Your task to perform on an android device: add a contact in the contacts app Image 0: 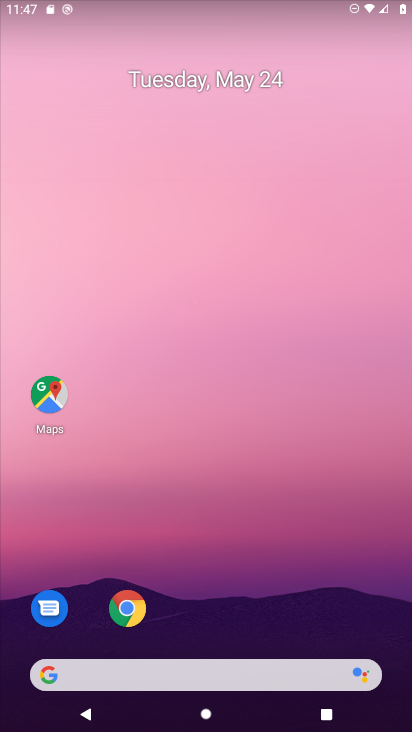
Step 0: drag from (363, 616) to (285, 134)
Your task to perform on an android device: add a contact in the contacts app Image 1: 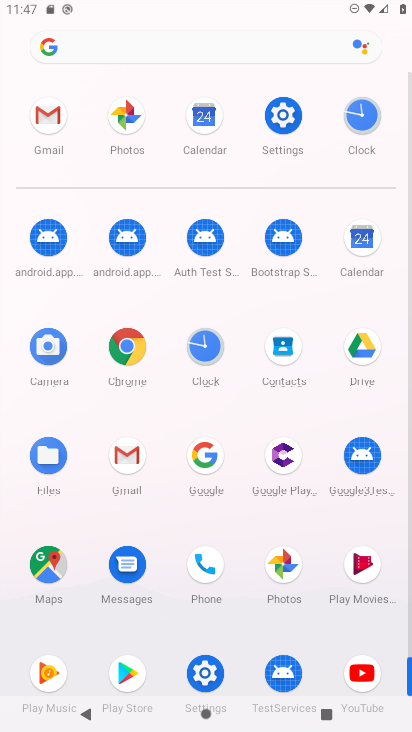
Step 1: click (281, 347)
Your task to perform on an android device: add a contact in the contacts app Image 2: 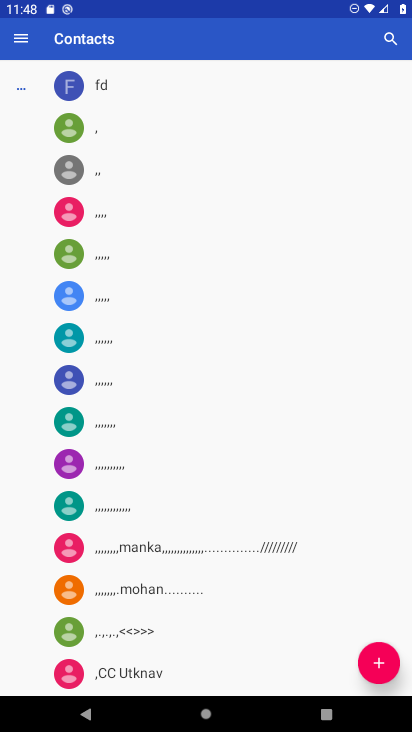
Step 2: click (378, 663)
Your task to perform on an android device: add a contact in the contacts app Image 3: 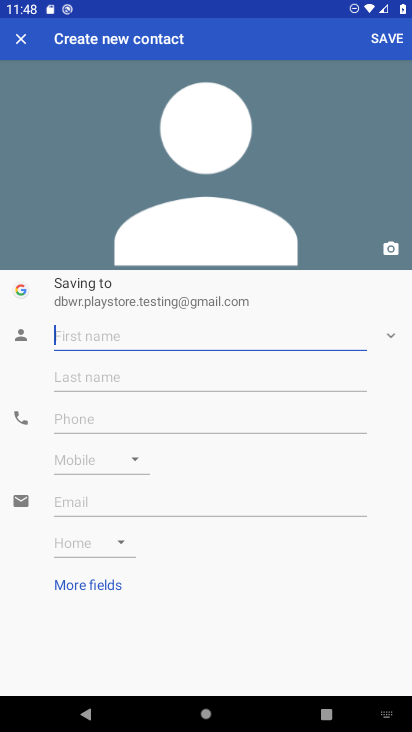
Step 3: type "hghjhgh"
Your task to perform on an android device: add a contact in the contacts app Image 4: 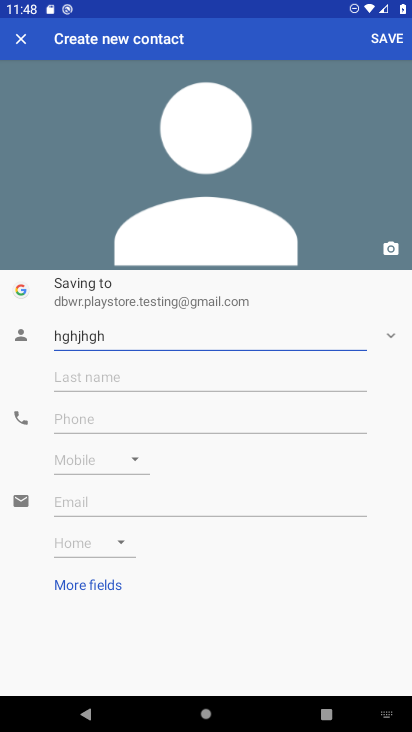
Step 4: click (114, 416)
Your task to perform on an android device: add a contact in the contacts app Image 5: 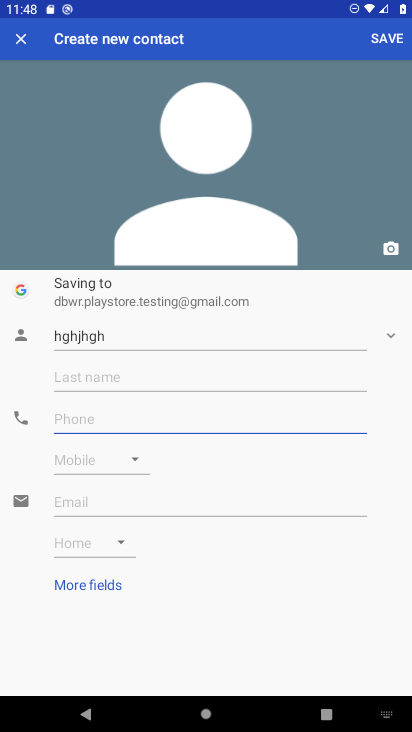
Step 5: type "097654"
Your task to perform on an android device: add a contact in the contacts app Image 6: 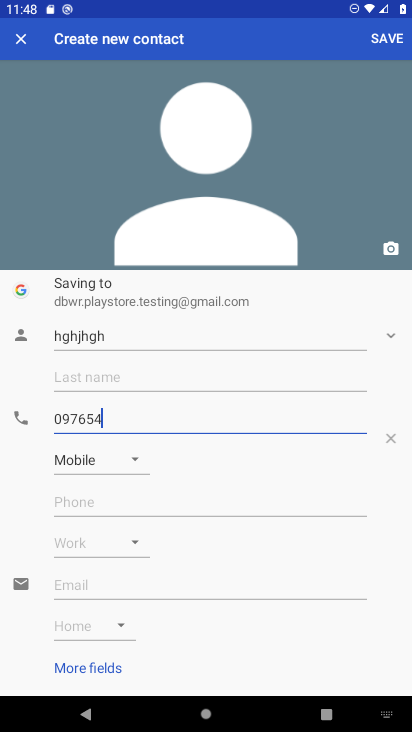
Step 6: click (382, 37)
Your task to perform on an android device: add a contact in the contacts app Image 7: 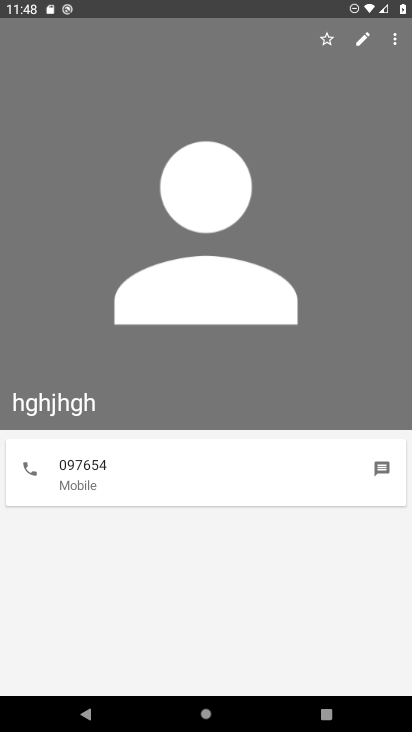
Step 7: task complete